Your task to perform on an android device: Open wifi settings Image 0: 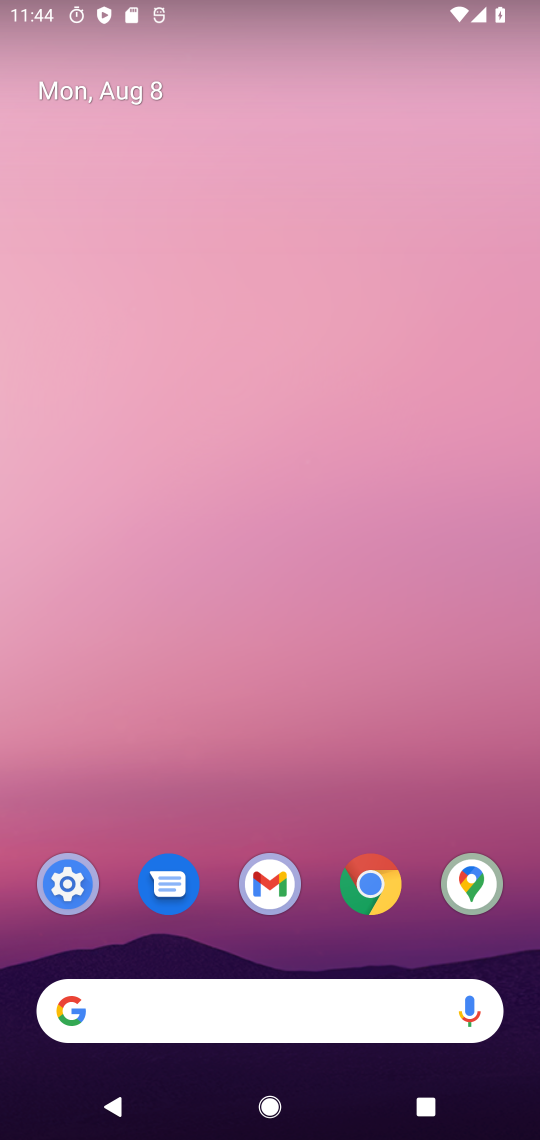
Step 0: click (53, 895)
Your task to perform on an android device: Open wifi settings Image 1: 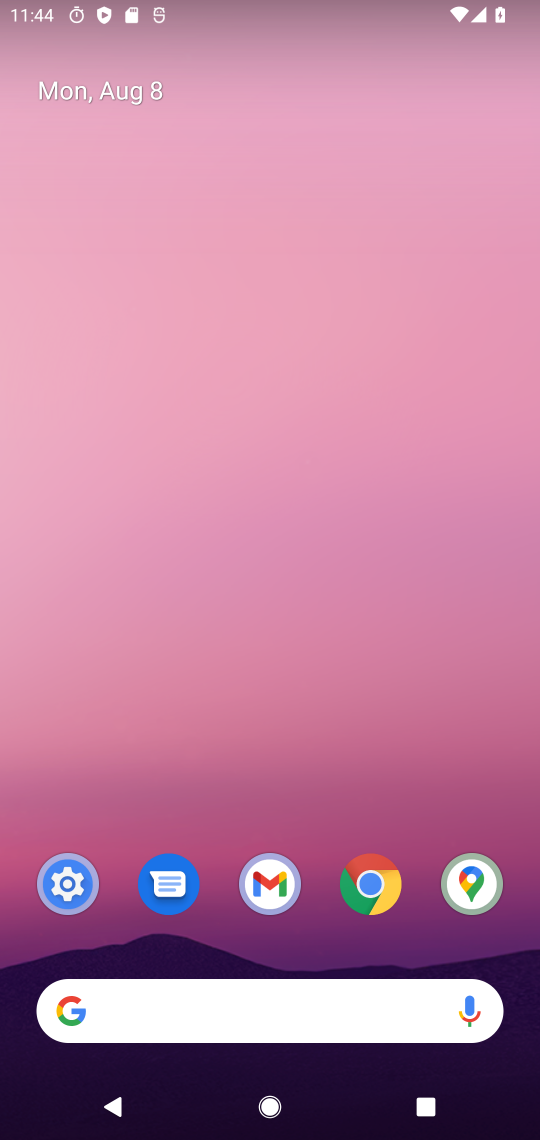
Step 1: click (64, 879)
Your task to perform on an android device: Open wifi settings Image 2: 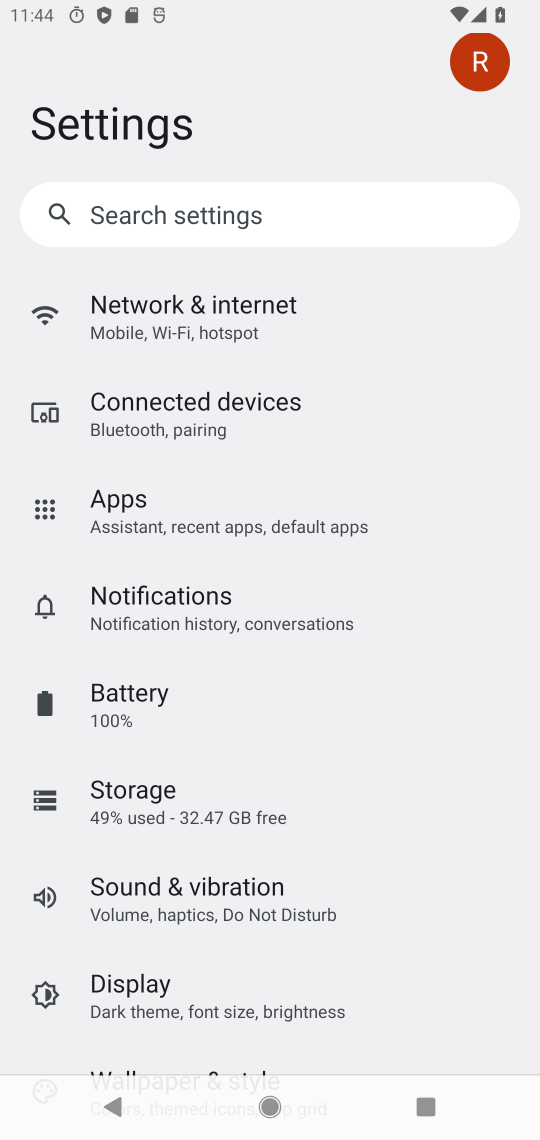
Step 2: click (221, 322)
Your task to perform on an android device: Open wifi settings Image 3: 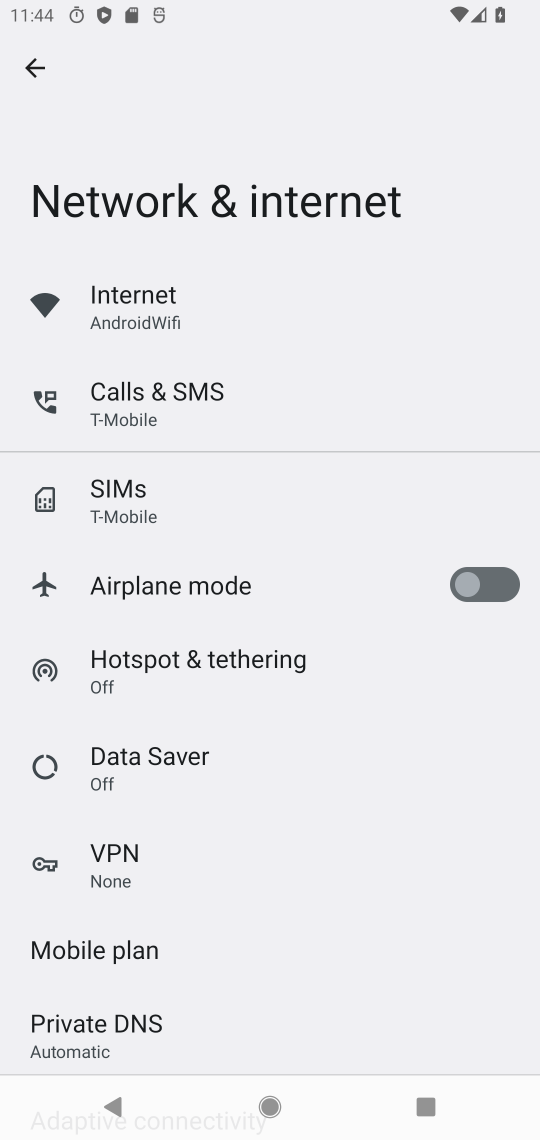
Step 3: click (138, 314)
Your task to perform on an android device: Open wifi settings Image 4: 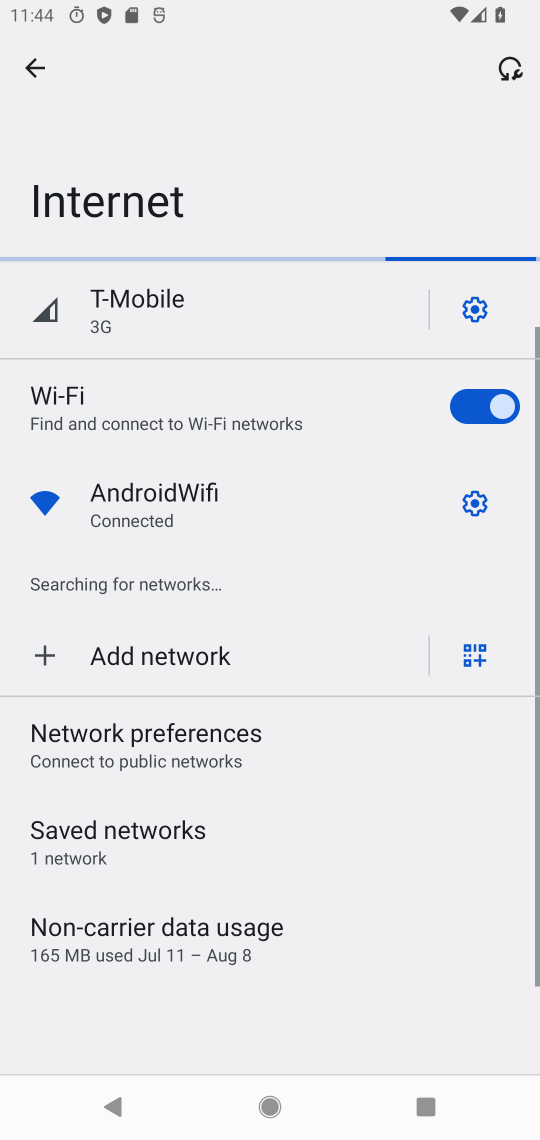
Step 4: task complete